Your task to perform on an android device: Go to notification settings Image 0: 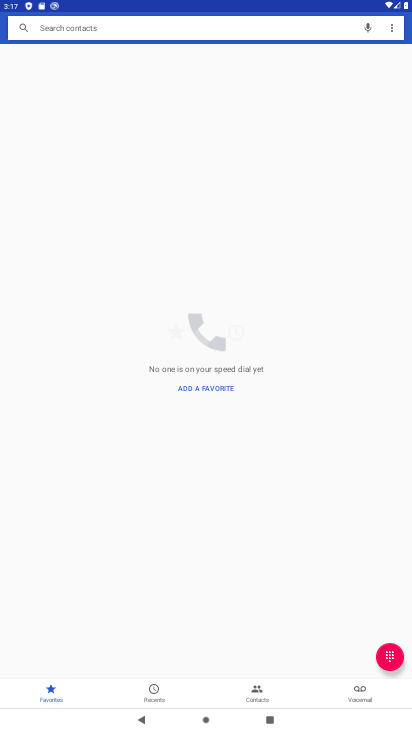
Step 0: press home button
Your task to perform on an android device: Go to notification settings Image 1: 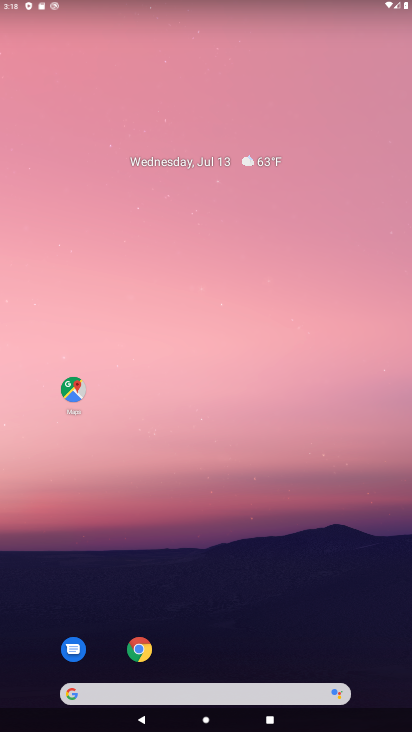
Step 1: drag from (293, 590) to (326, 34)
Your task to perform on an android device: Go to notification settings Image 2: 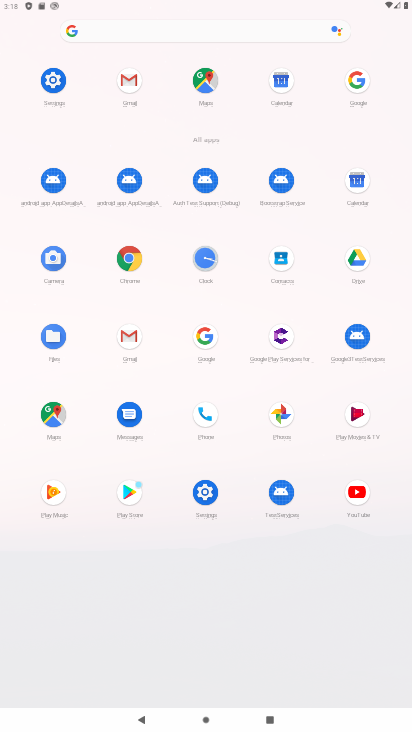
Step 2: click (204, 496)
Your task to perform on an android device: Go to notification settings Image 3: 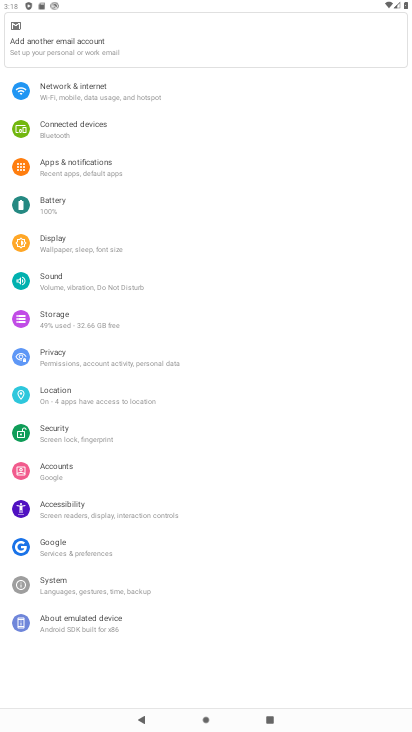
Step 3: click (112, 165)
Your task to perform on an android device: Go to notification settings Image 4: 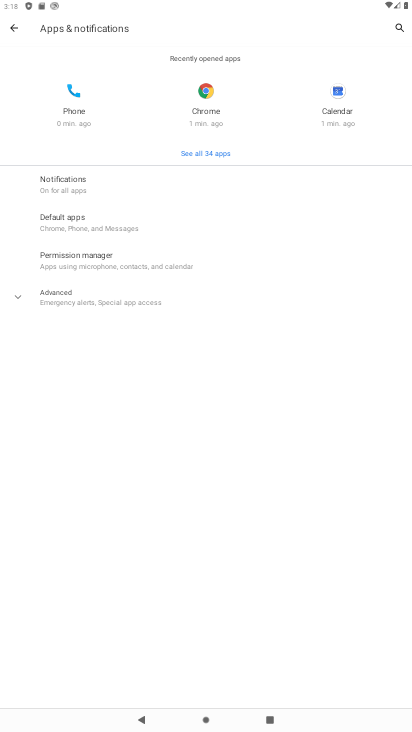
Step 4: click (101, 181)
Your task to perform on an android device: Go to notification settings Image 5: 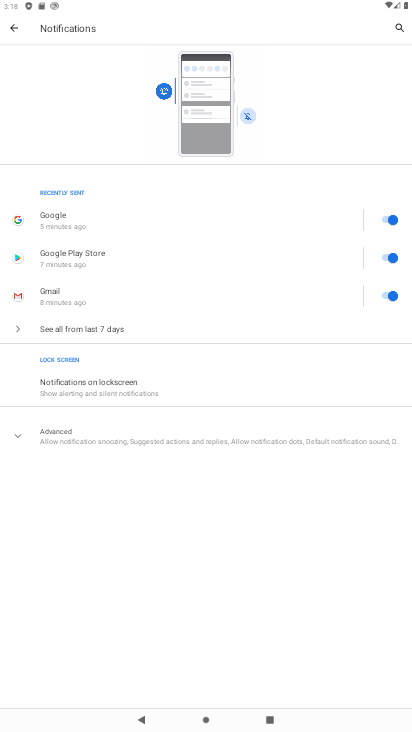
Step 5: task complete